Your task to perform on an android device: read, delete, or share a saved page in the chrome app Image 0: 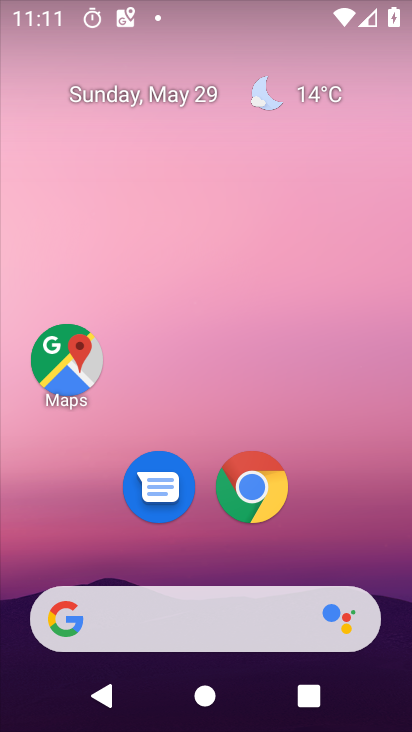
Step 0: click (254, 480)
Your task to perform on an android device: read, delete, or share a saved page in the chrome app Image 1: 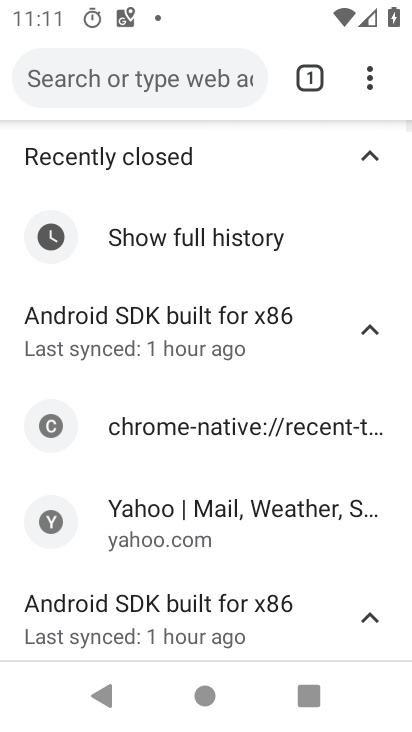
Step 1: click (364, 71)
Your task to perform on an android device: read, delete, or share a saved page in the chrome app Image 2: 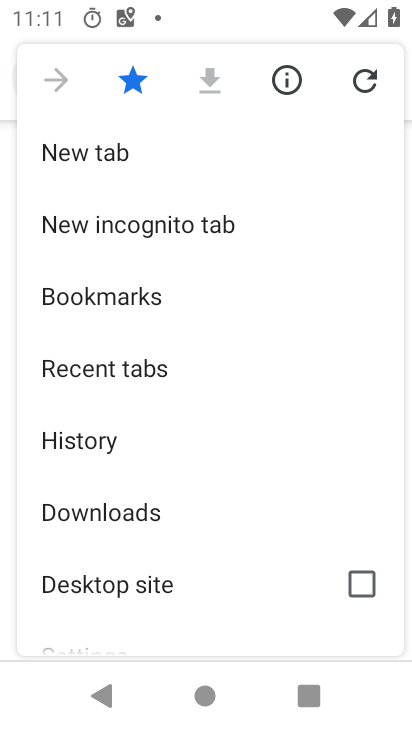
Step 2: click (102, 509)
Your task to perform on an android device: read, delete, or share a saved page in the chrome app Image 3: 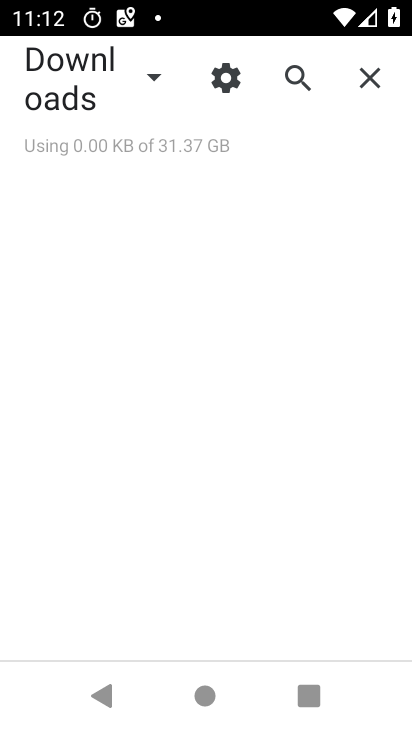
Step 3: task complete